Your task to perform on an android device: Search for a new bronzer Image 0: 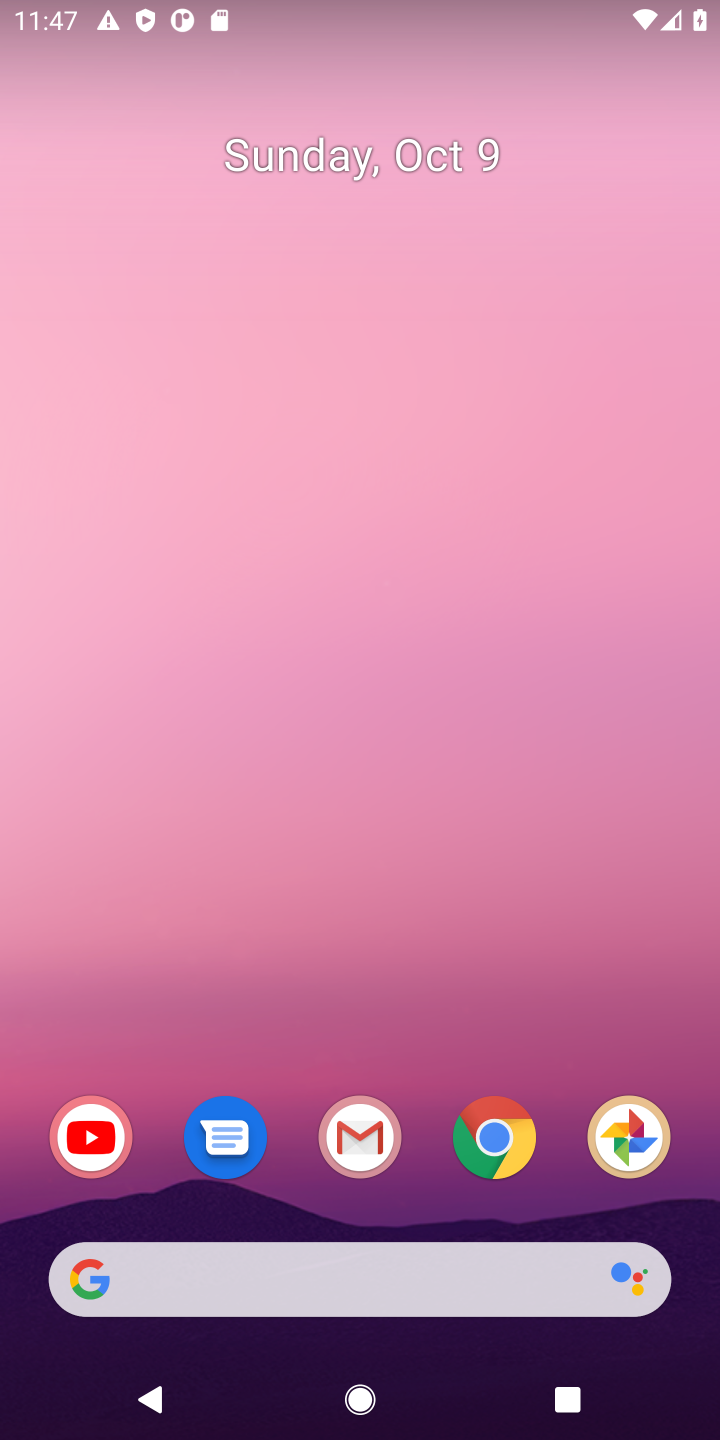
Step 0: drag from (400, 1061) to (454, 51)
Your task to perform on an android device: Search for a new bronzer Image 1: 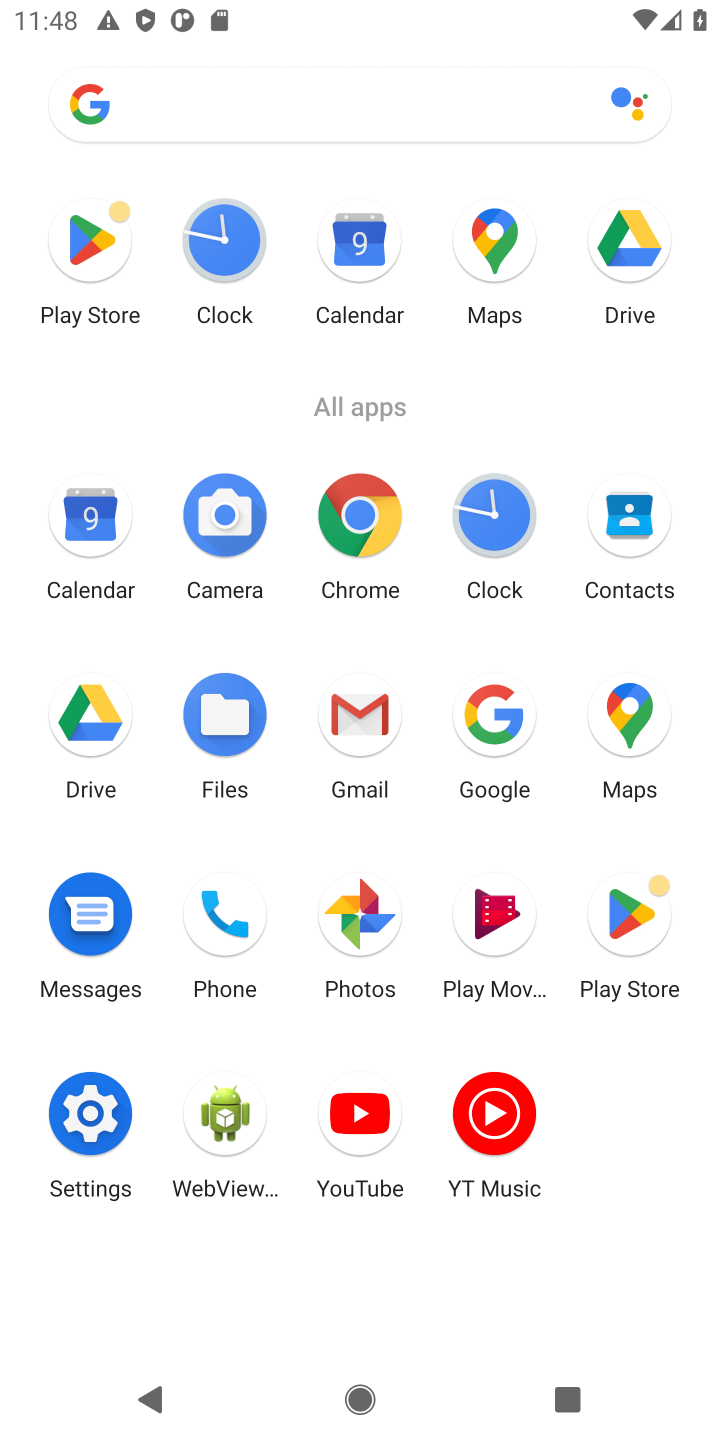
Step 1: click (351, 533)
Your task to perform on an android device: Search for a new bronzer Image 2: 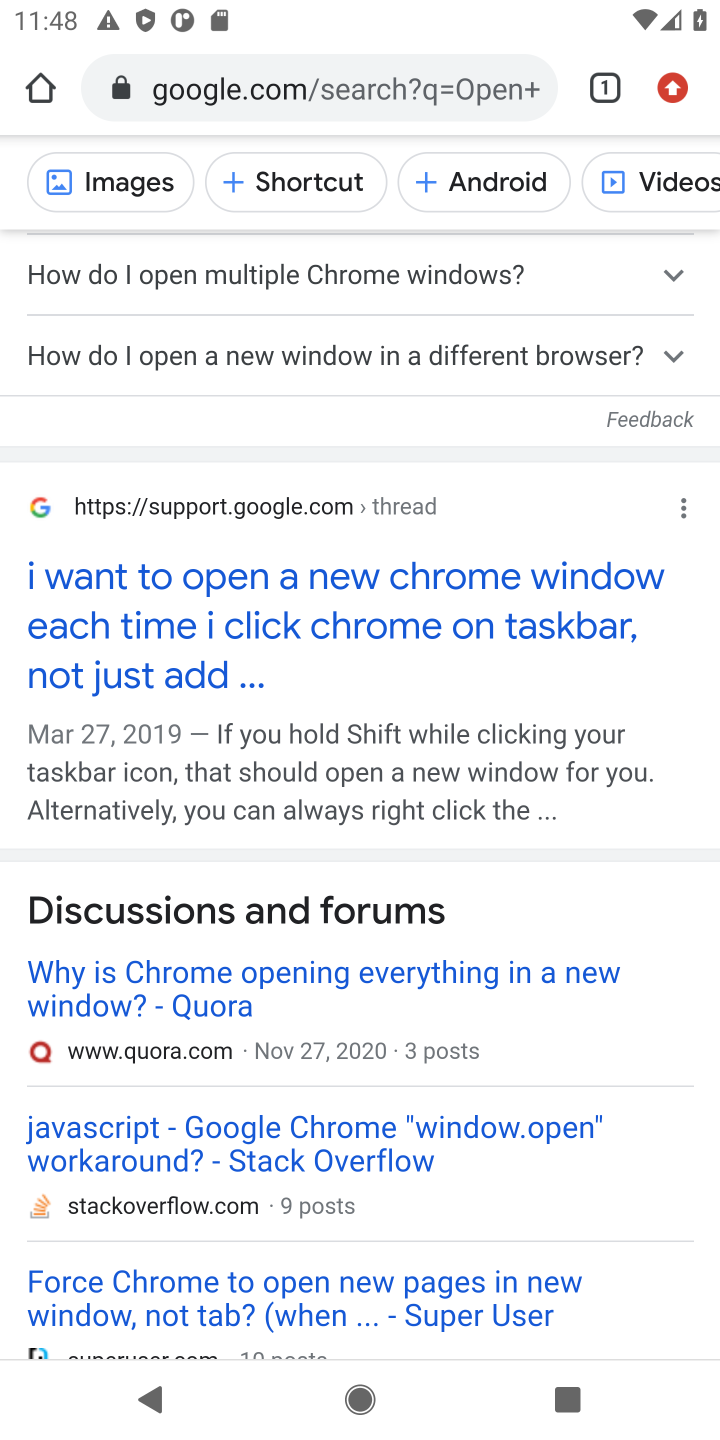
Step 2: drag from (383, 160) to (343, 1243)
Your task to perform on an android device: Search for a new bronzer Image 3: 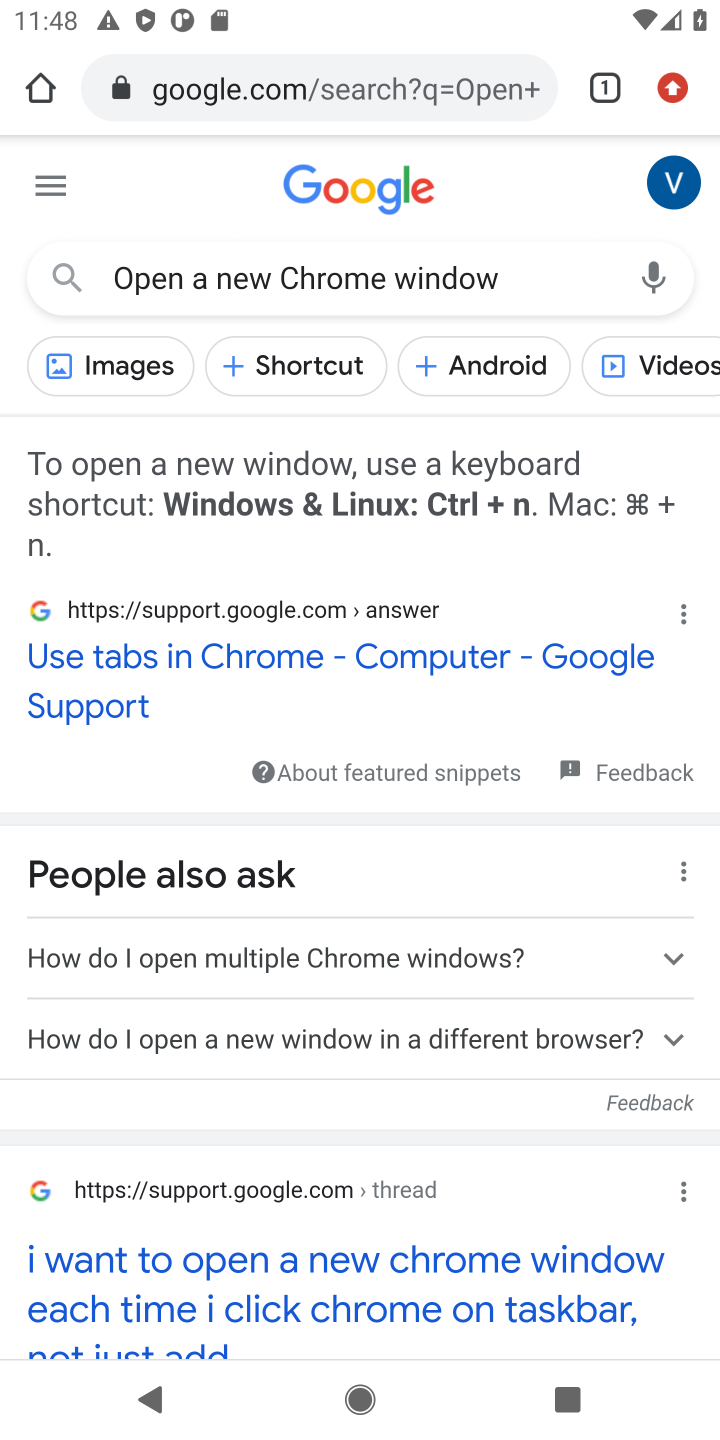
Step 3: drag from (324, 299) to (265, 936)
Your task to perform on an android device: Search for a new bronzer Image 4: 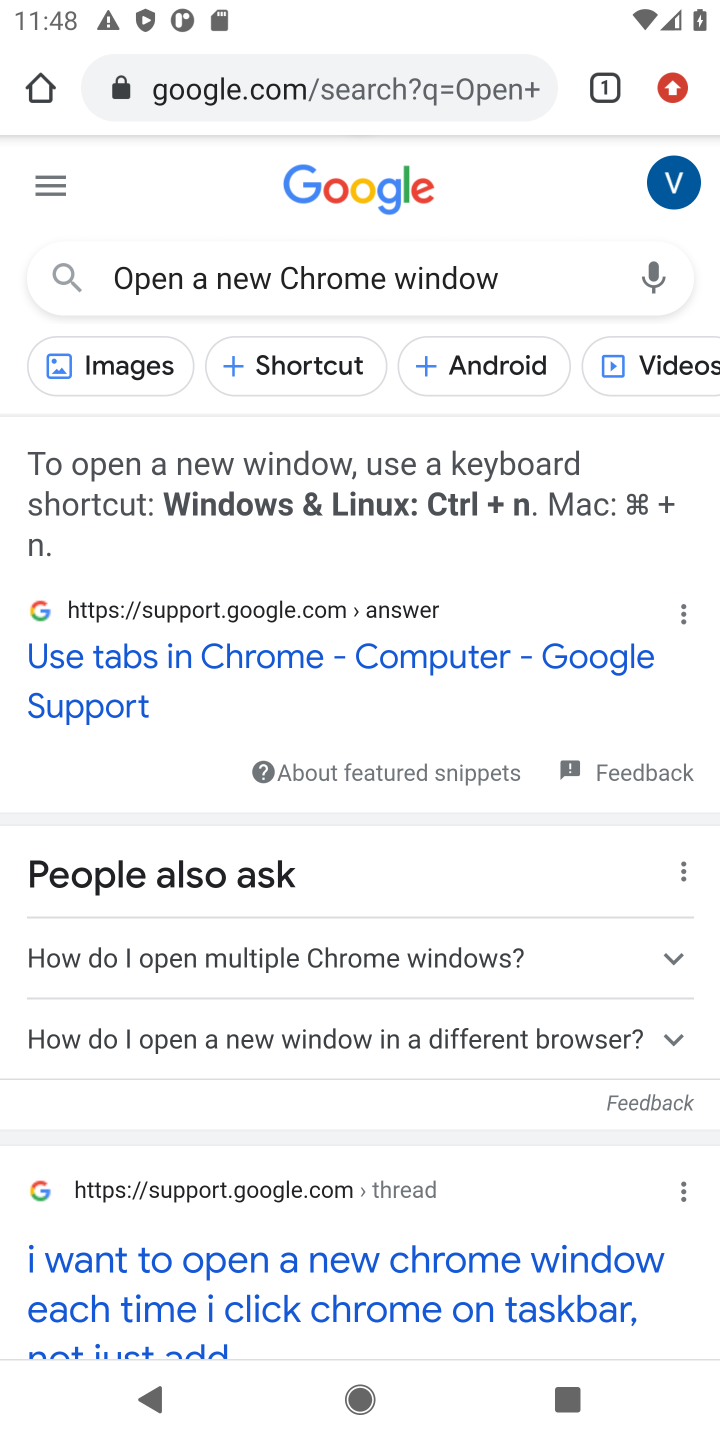
Step 4: click (516, 279)
Your task to perform on an android device: Search for a new bronzer Image 5: 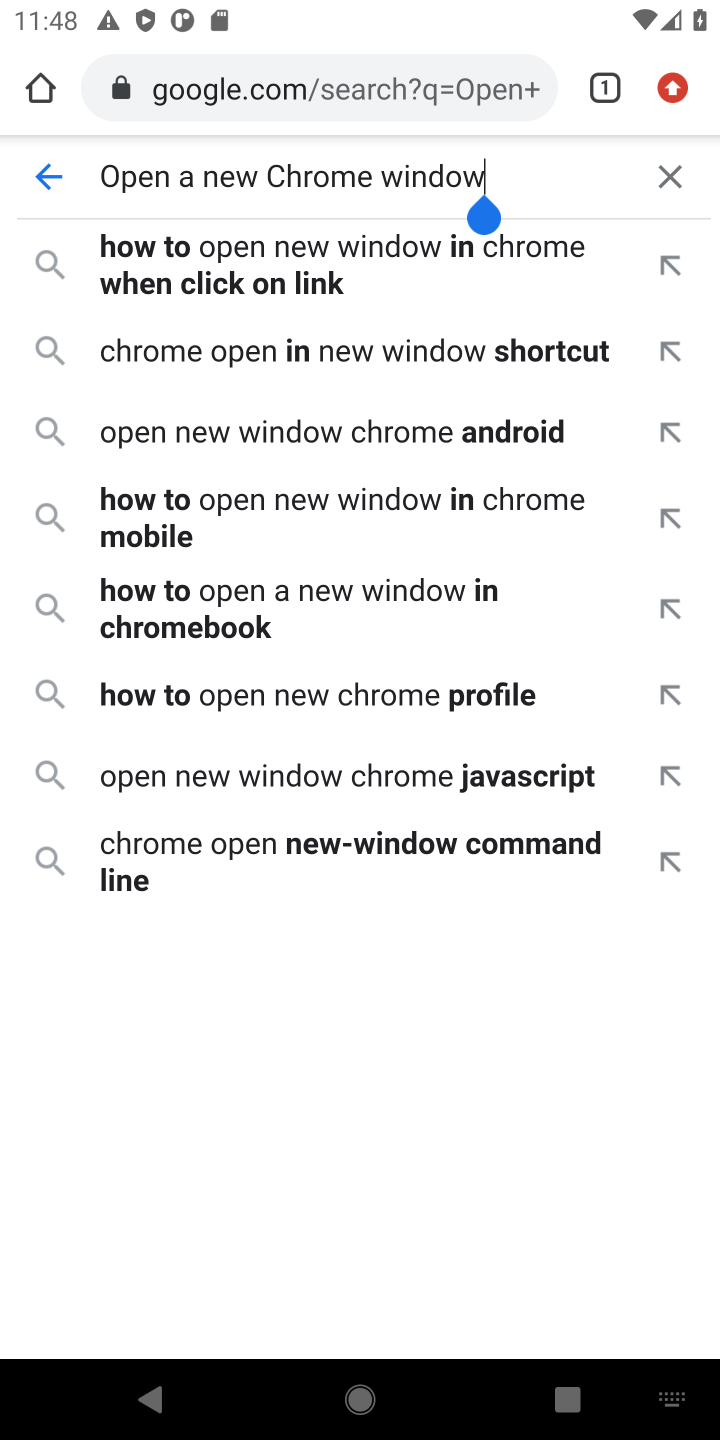
Step 5: click (450, 87)
Your task to perform on an android device: Search for a new bronzer Image 6: 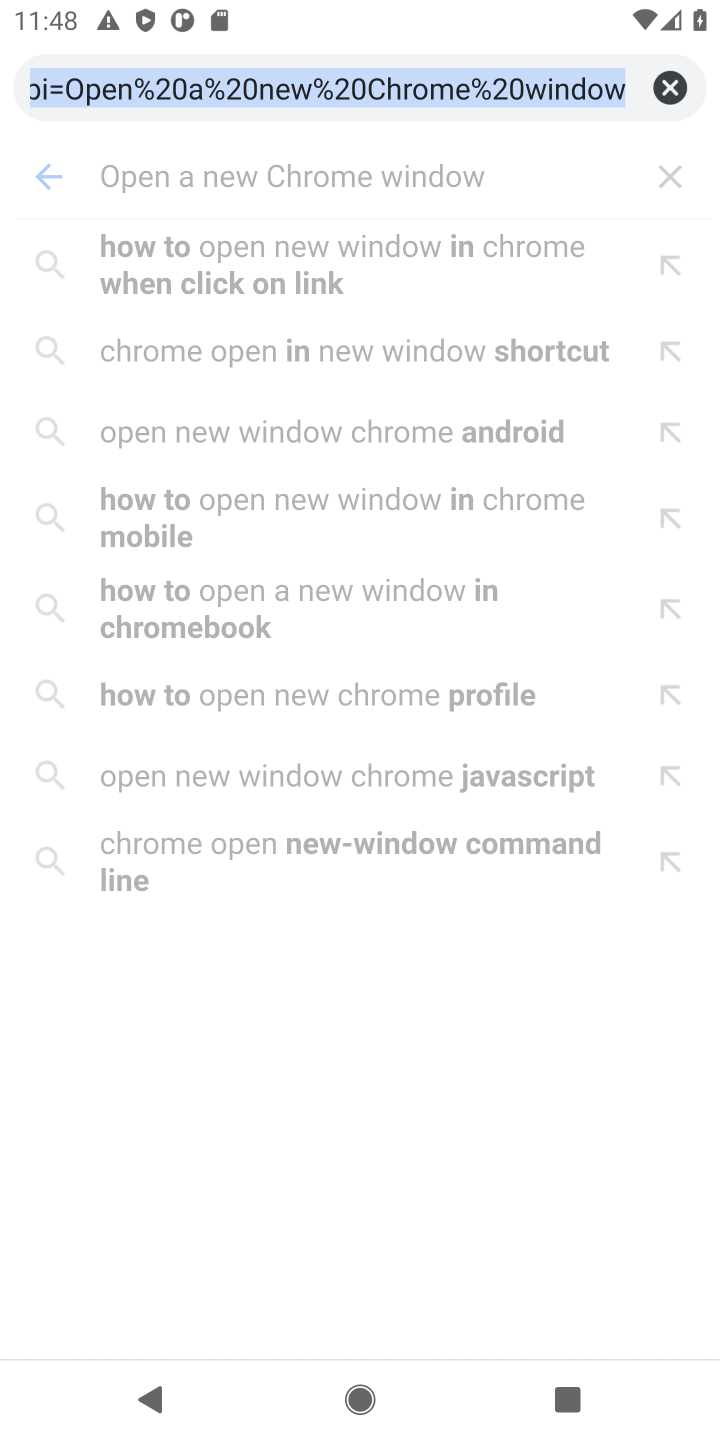
Step 6: click (663, 79)
Your task to perform on an android device: Search for a new bronzer Image 7: 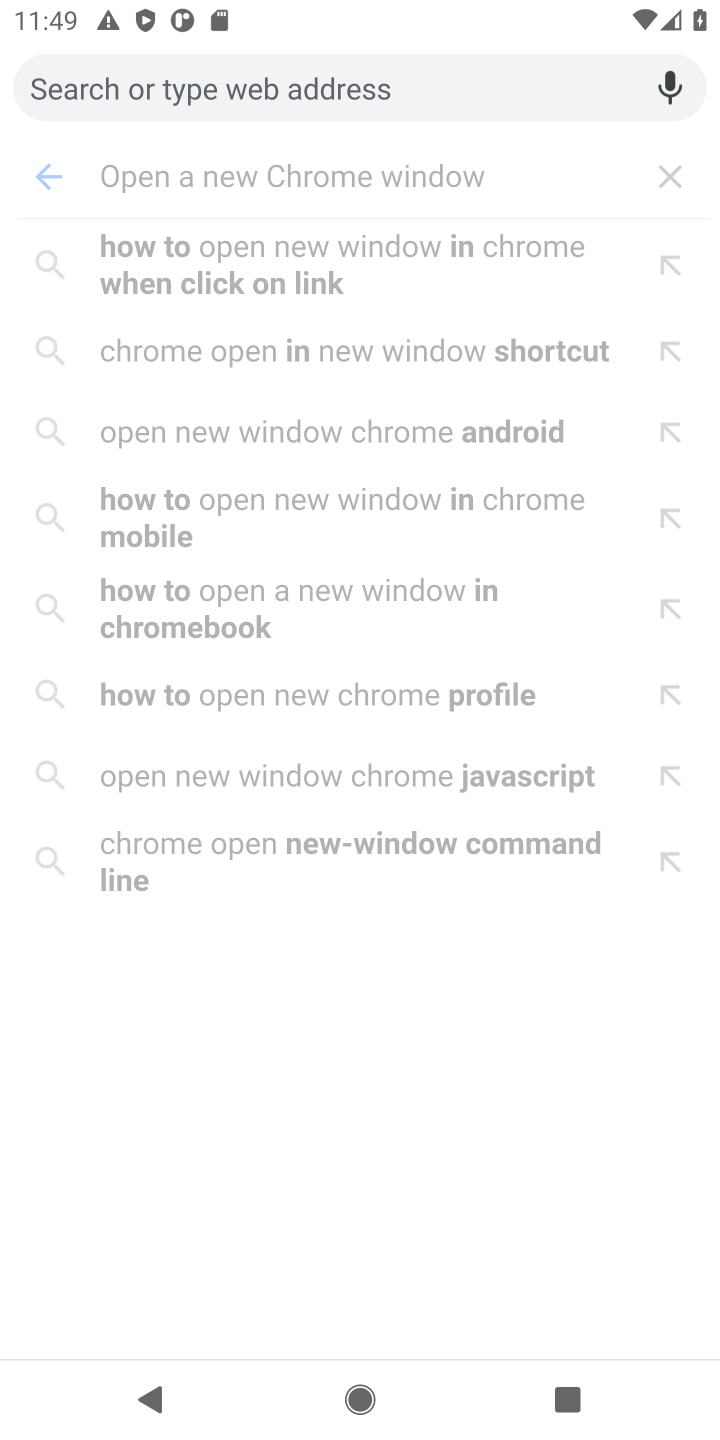
Step 7: type "Search for a new bronzer"
Your task to perform on an android device: Search for a new bronzer Image 8: 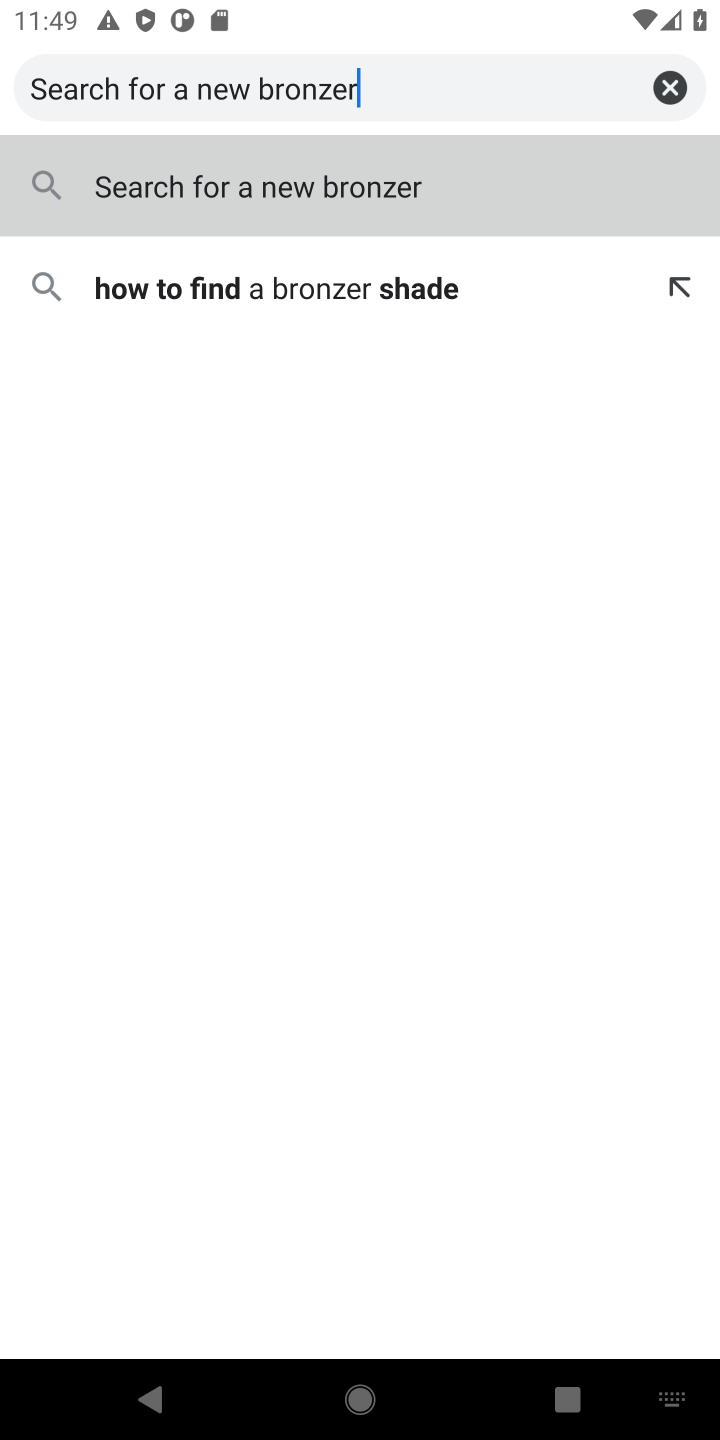
Step 8: click (261, 170)
Your task to perform on an android device: Search for a new bronzer Image 9: 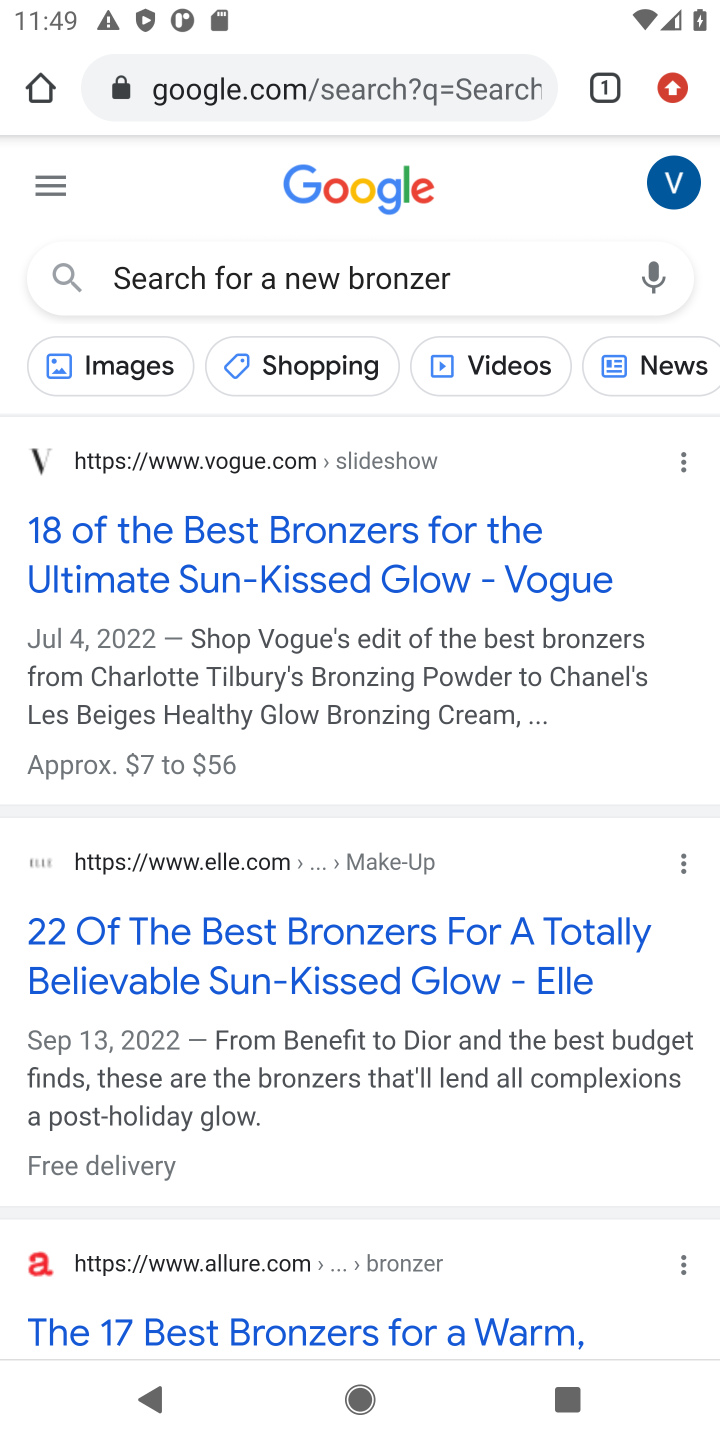
Step 9: task complete